Your task to perform on an android device: delete a single message in the gmail app Image 0: 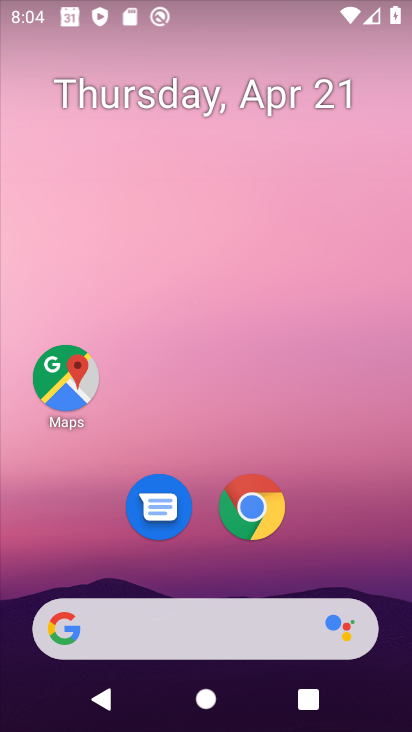
Step 0: drag from (208, 459) to (360, 4)
Your task to perform on an android device: delete a single message in the gmail app Image 1: 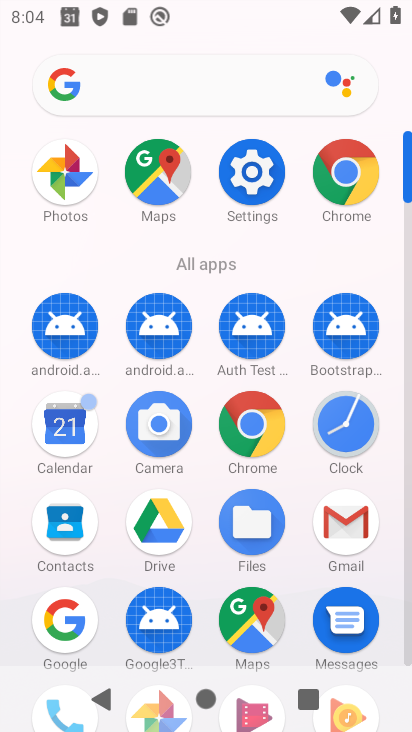
Step 1: click (329, 528)
Your task to perform on an android device: delete a single message in the gmail app Image 2: 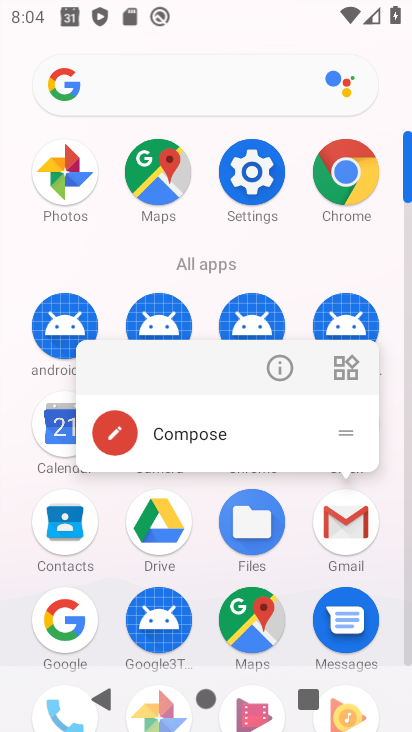
Step 2: click (346, 518)
Your task to perform on an android device: delete a single message in the gmail app Image 3: 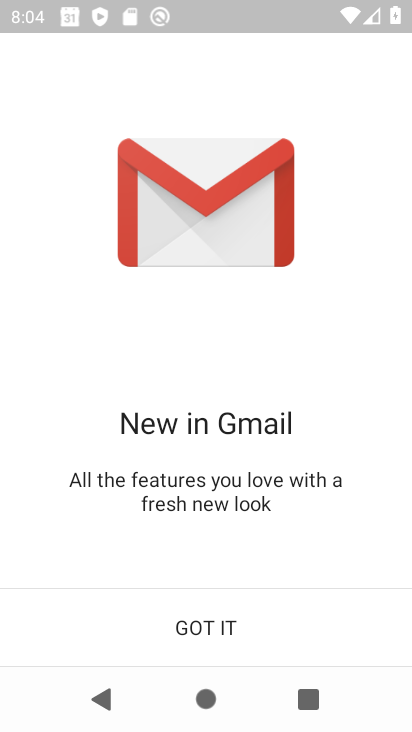
Step 3: click (250, 628)
Your task to perform on an android device: delete a single message in the gmail app Image 4: 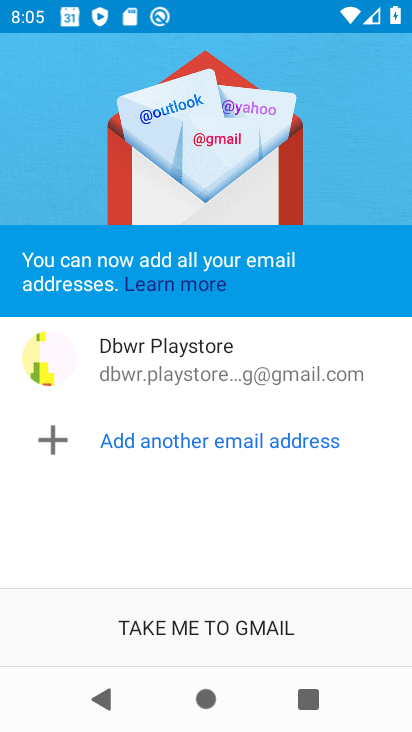
Step 4: click (210, 619)
Your task to perform on an android device: delete a single message in the gmail app Image 5: 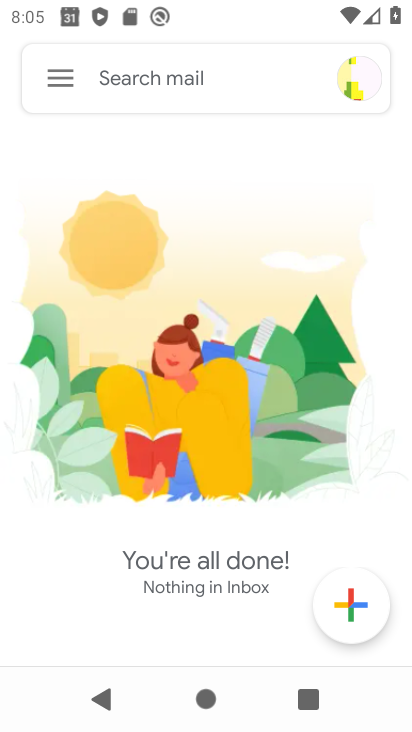
Step 5: click (69, 70)
Your task to perform on an android device: delete a single message in the gmail app Image 6: 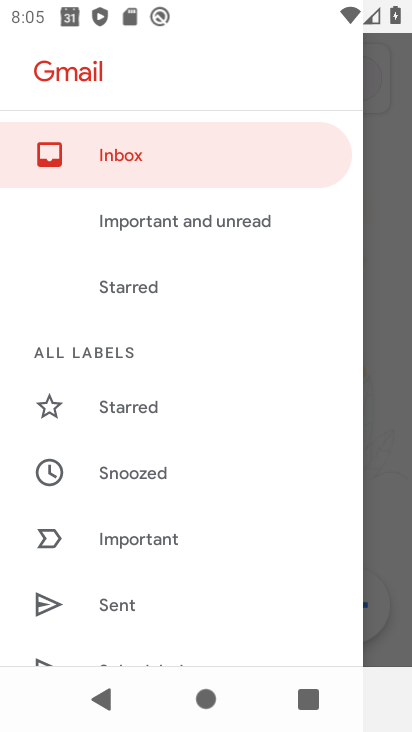
Step 6: drag from (155, 593) to (277, 56)
Your task to perform on an android device: delete a single message in the gmail app Image 7: 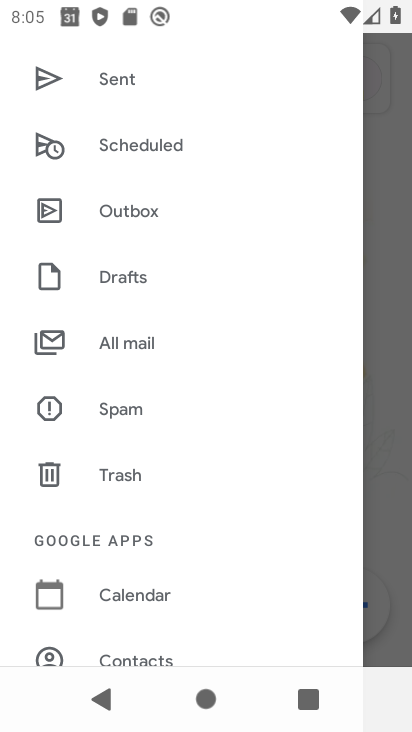
Step 7: click (144, 341)
Your task to perform on an android device: delete a single message in the gmail app Image 8: 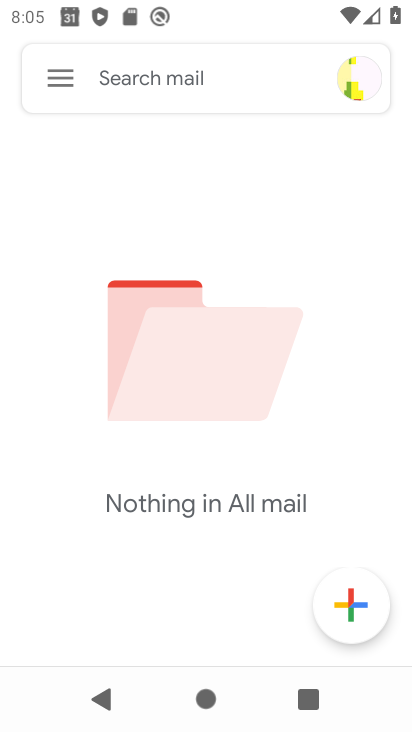
Step 8: task complete